Your task to perform on an android device: turn on bluetooth scan Image 0: 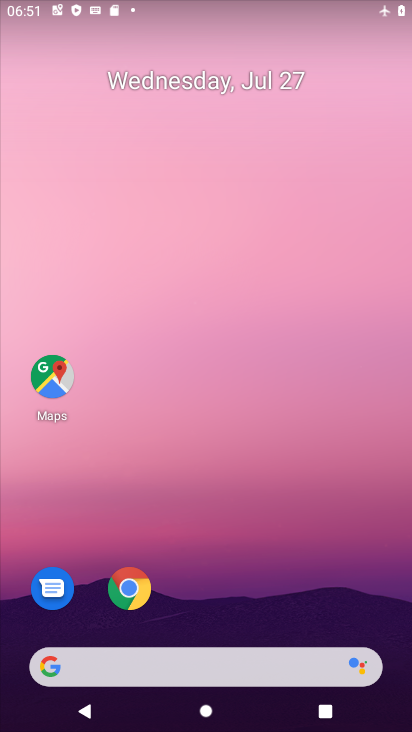
Step 0: drag from (372, 510) to (355, 32)
Your task to perform on an android device: turn on bluetooth scan Image 1: 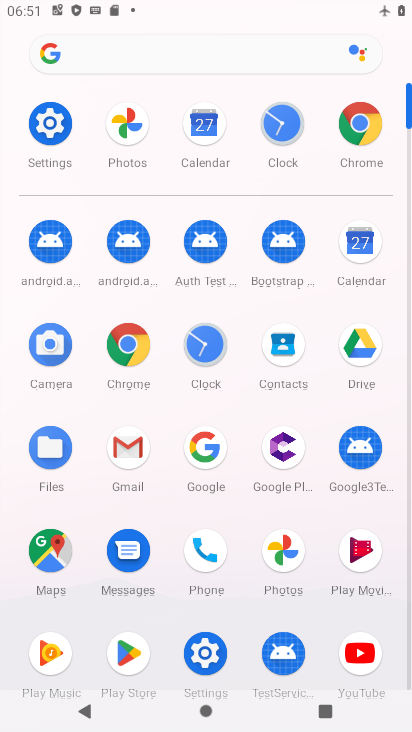
Step 1: click (31, 118)
Your task to perform on an android device: turn on bluetooth scan Image 2: 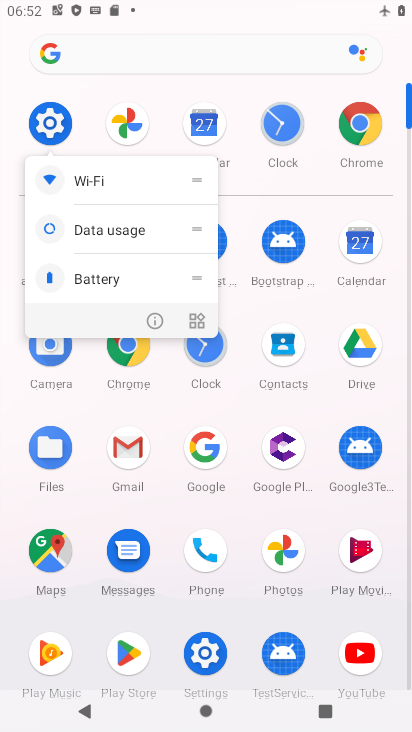
Step 2: click (57, 116)
Your task to perform on an android device: turn on bluetooth scan Image 3: 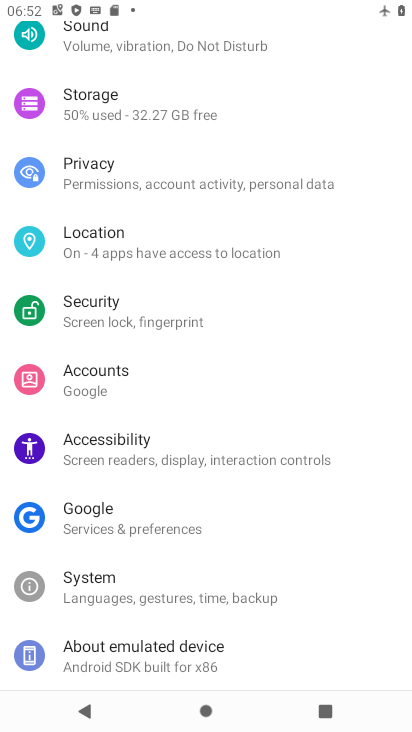
Step 3: click (143, 246)
Your task to perform on an android device: turn on bluetooth scan Image 4: 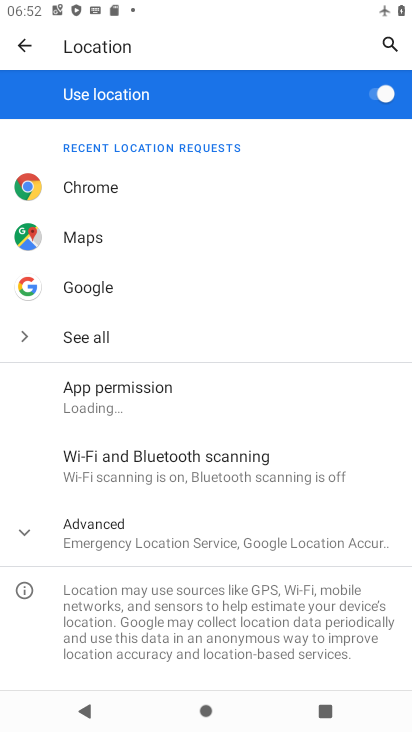
Step 4: click (142, 534)
Your task to perform on an android device: turn on bluetooth scan Image 5: 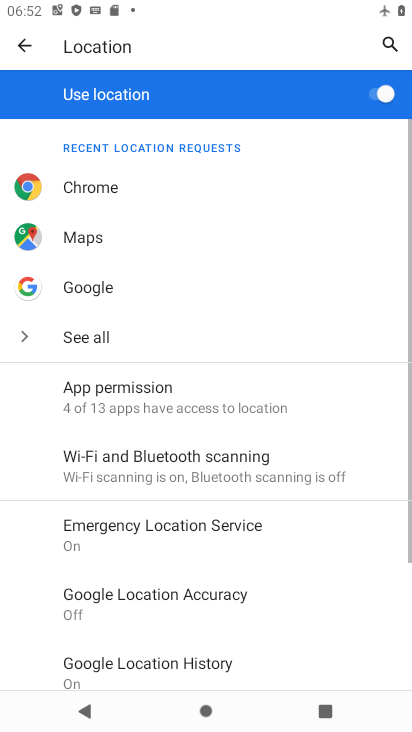
Step 5: click (182, 458)
Your task to perform on an android device: turn on bluetooth scan Image 6: 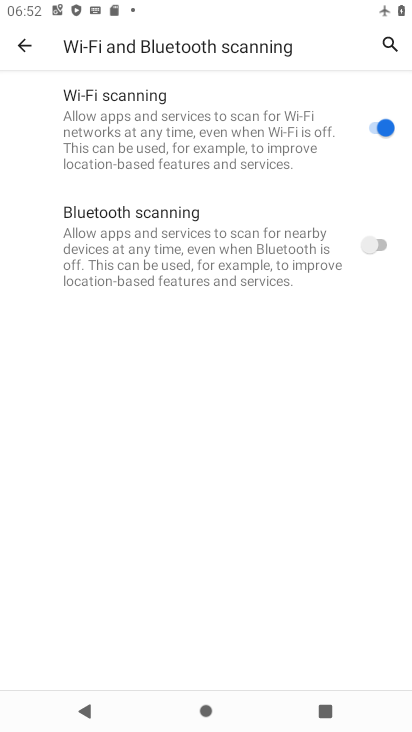
Step 6: click (378, 251)
Your task to perform on an android device: turn on bluetooth scan Image 7: 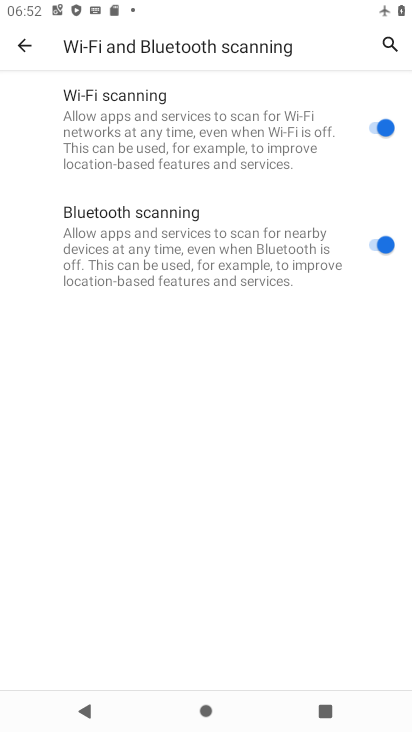
Step 7: task complete